Your task to perform on an android device: change notifications settings Image 0: 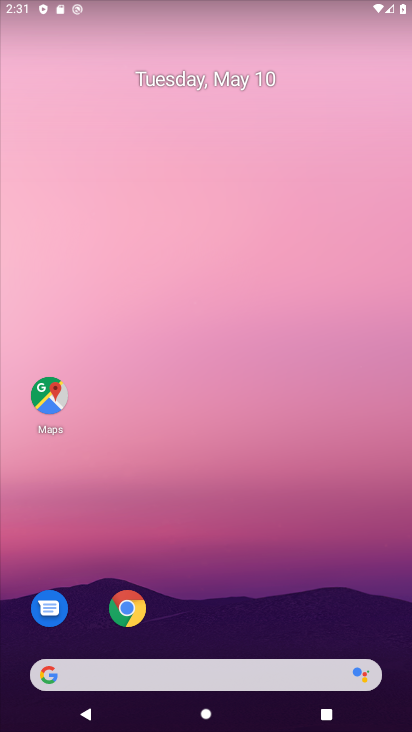
Step 0: drag from (376, 641) to (314, 256)
Your task to perform on an android device: change notifications settings Image 1: 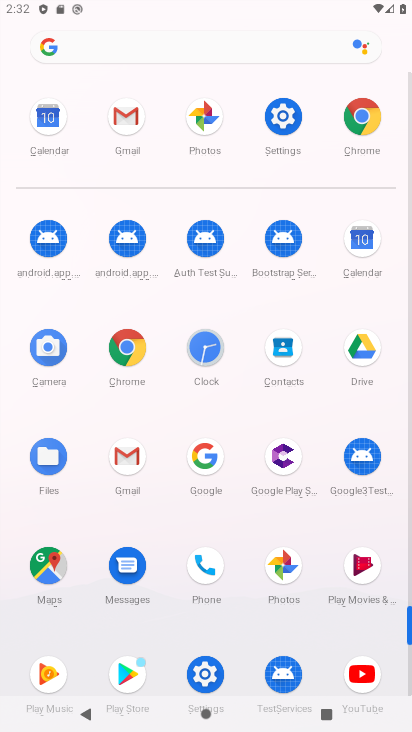
Step 1: click (205, 670)
Your task to perform on an android device: change notifications settings Image 2: 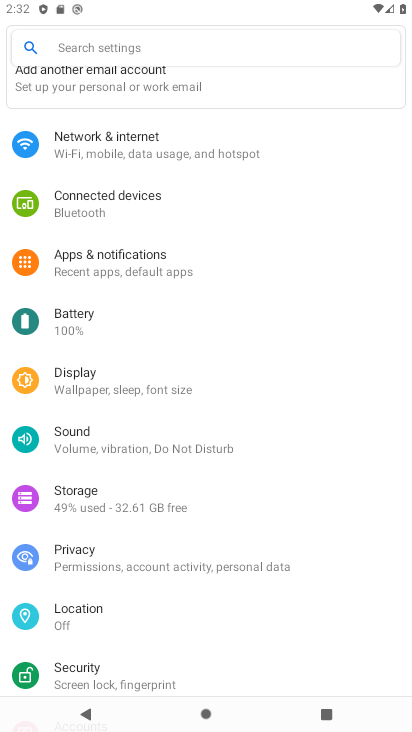
Step 2: click (106, 254)
Your task to perform on an android device: change notifications settings Image 3: 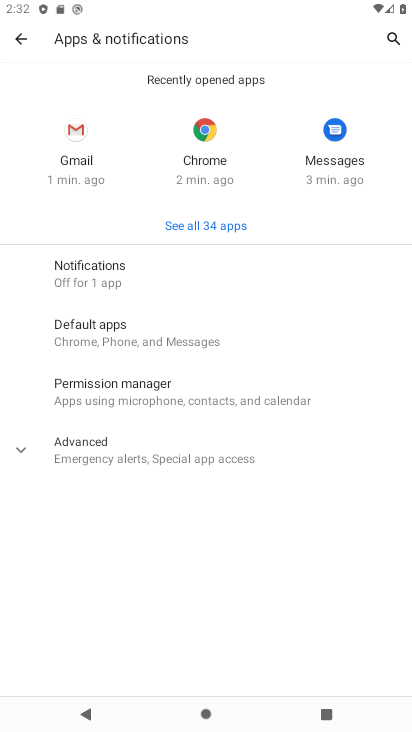
Step 3: click (83, 271)
Your task to perform on an android device: change notifications settings Image 4: 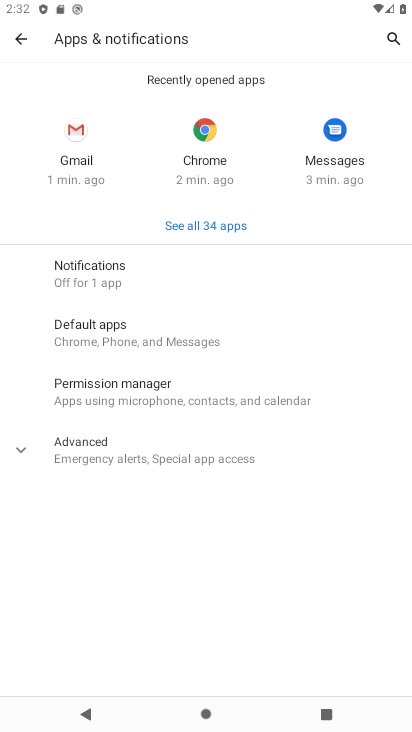
Step 4: click (83, 271)
Your task to perform on an android device: change notifications settings Image 5: 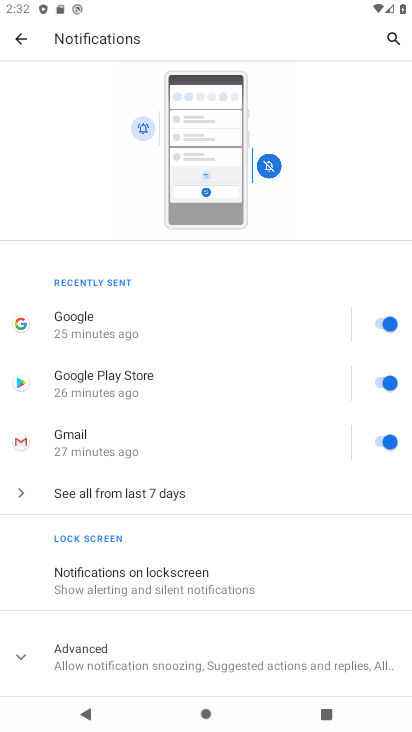
Step 5: drag from (289, 641) to (294, 347)
Your task to perform on an android device: change notifications settings Image 6: 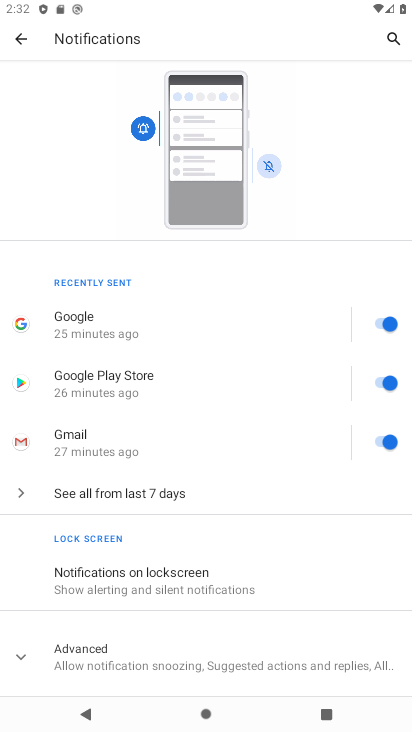
Step 6: click (19, 657)
Your task to perform on an android device: change notifications settings Image 7: 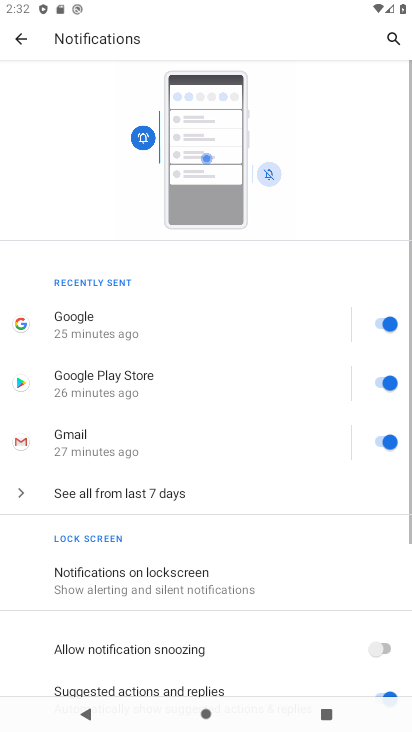
Step 7: drag from (257, 642) to (330, 240)
Your task to perform on an android device: change notifications settings Image 8: 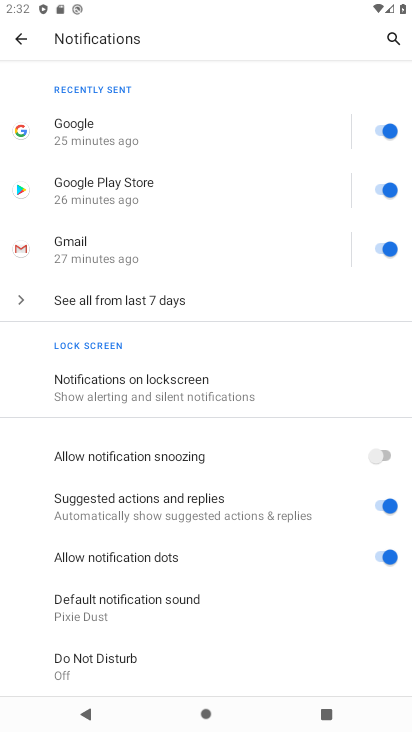
Step 8: click (379, 556)
Your task to perform on an android device: change notifications settings Image 9: 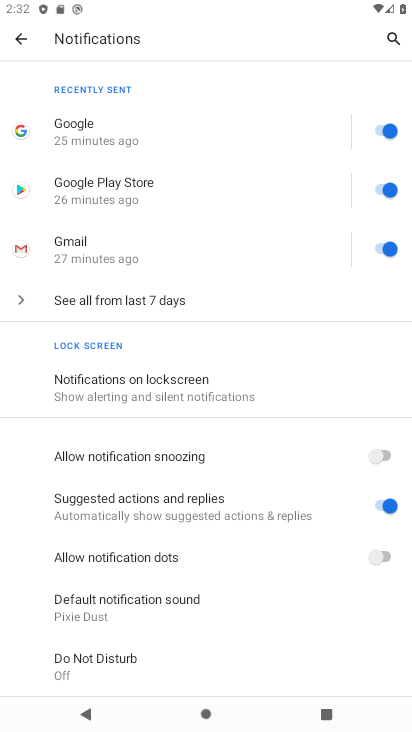
Step 9: task complete